Your task to perform on an android device: open chrome and create a bookmark for the current page Image 0: 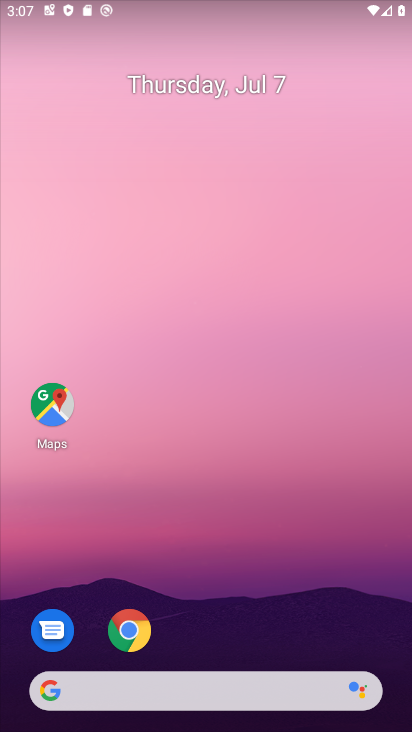
Step 0: click (139, 629)
Your task to perform on an android device: open chrome and create a bookmark for the current page Image 1: 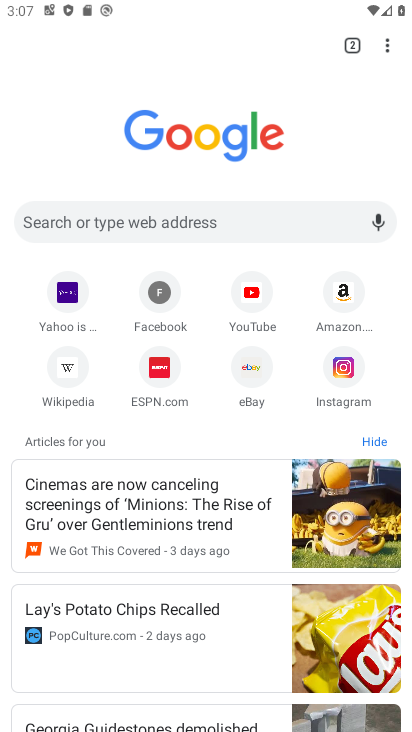
Step 1: click (379, 41)
Your task to perform on an android device: open chrome and create a bookmark for the current page Image 2: 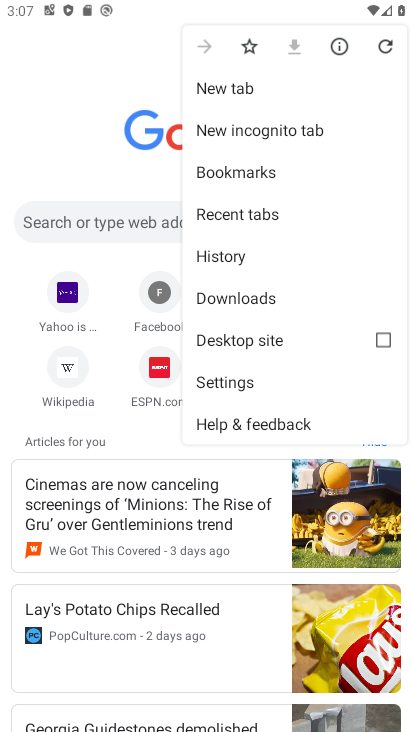
Step 2: click (251, 44)
Your task to perform on an android device: open chrome and create a bookmark for the current page Image 3: 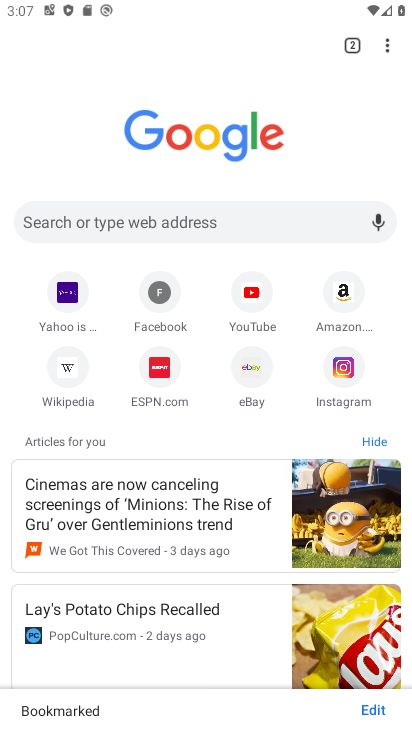
Step 3: task complete